Your task to perform on an android device: Clear all items from cart on ebay. Add "macbook pro" to the cart on ebay Image 0: 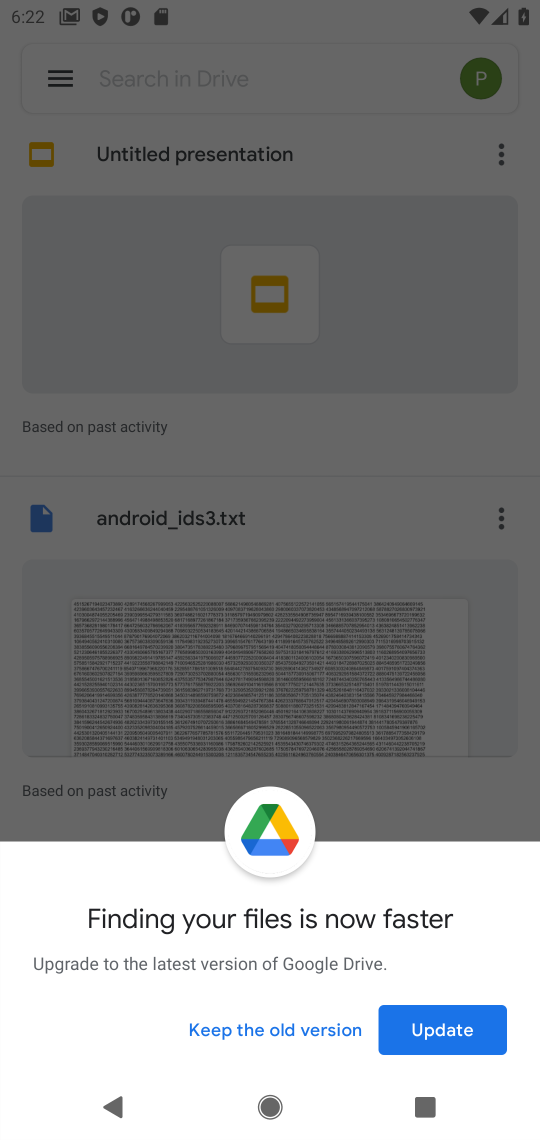
Step 0: press home button
Your task to perform on an android device: Clear all items from cart on ebay. Add "macbook pro" to the cart on ebay Image 1: 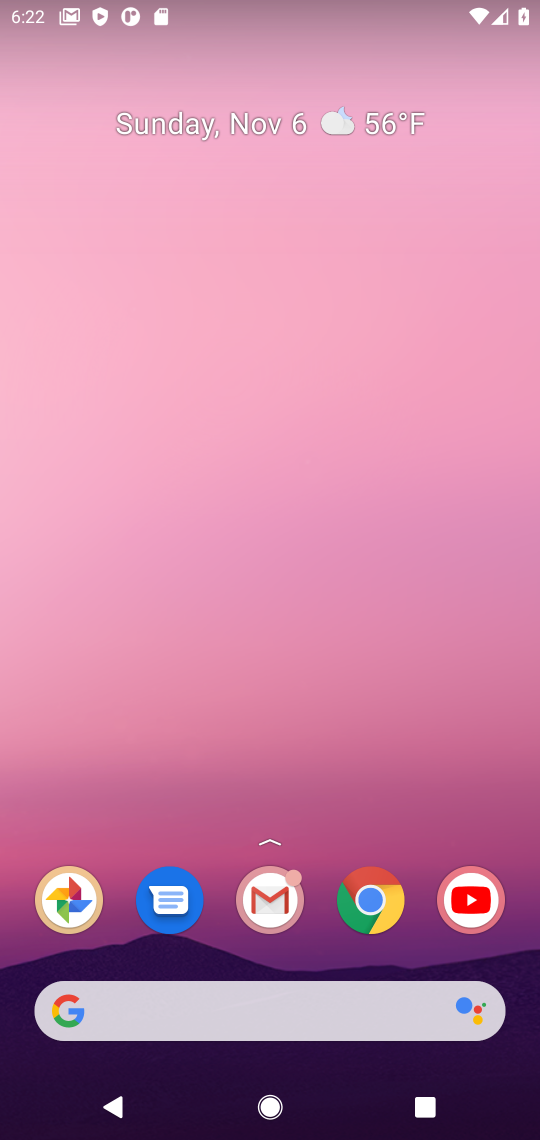
Step 1: drag from (294, 970) to (288, 37)
Your task to perform on an android device: Clear all items from cart on ebay. Add "macbook pro" to the cart on ebay Image 2: 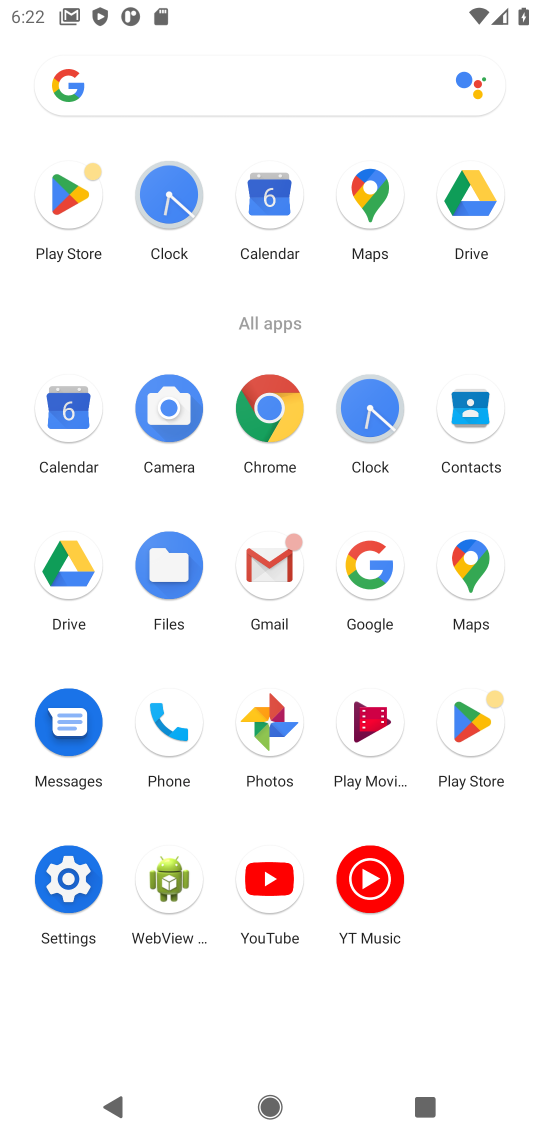
Step 2: click (272, 410)
Your task to perform on an android device: Clear all items from cart on ebay. Add "macbook pro" to the cart on ebay Image 3: 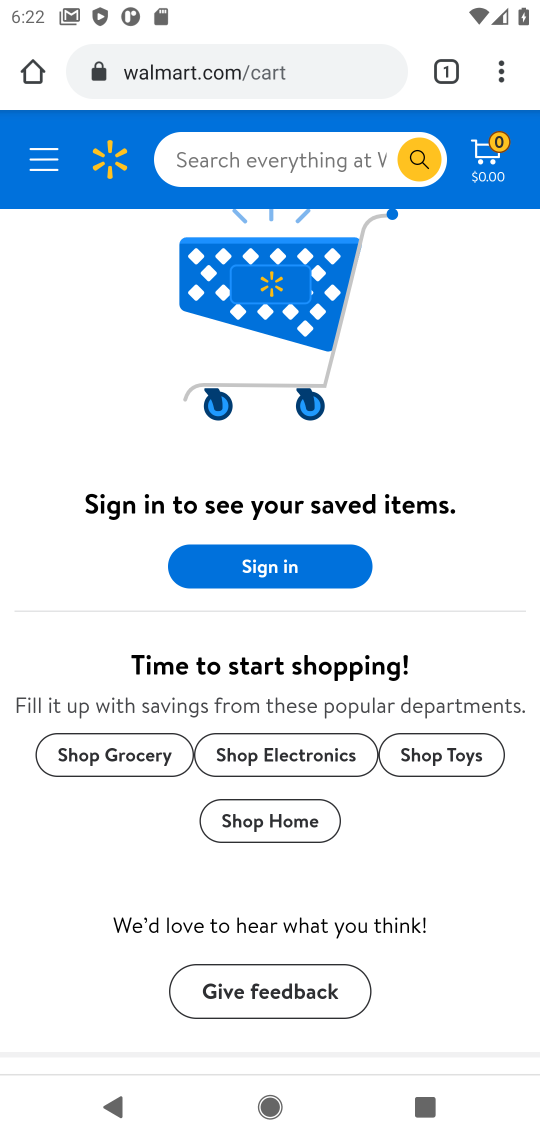
Step 3: click (300, 63)
Your task to perform on an android device: Clear all items from cart on ebay. Add "macbook pro" to the cart on ebay Image 4: 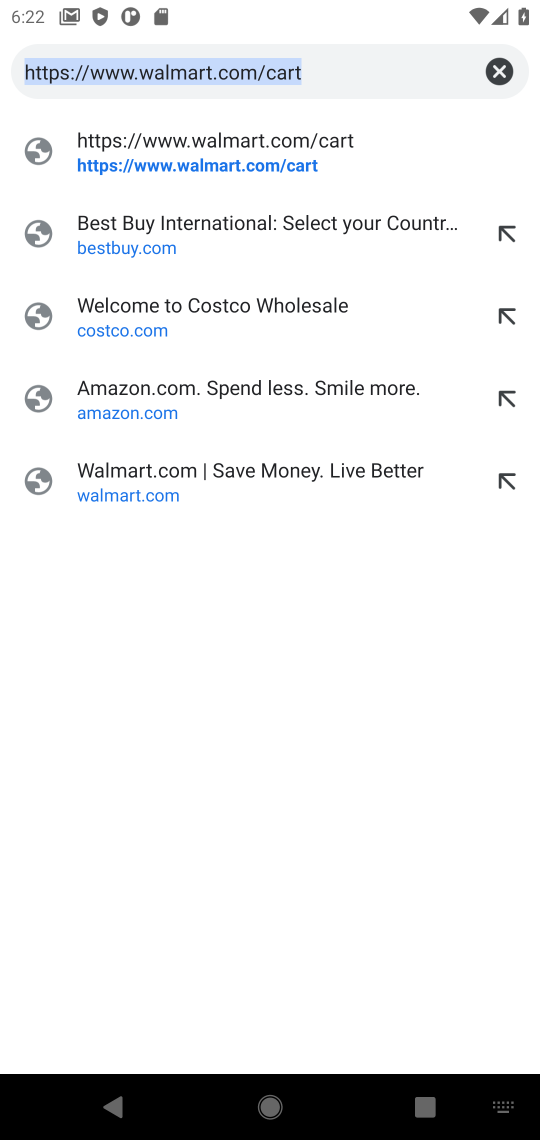
Step 4: type "ebay.com"
Your task to perform on an android device: Clear all items from cart on ebay. Add "macbook pro" to the cart on ebay Image 5: 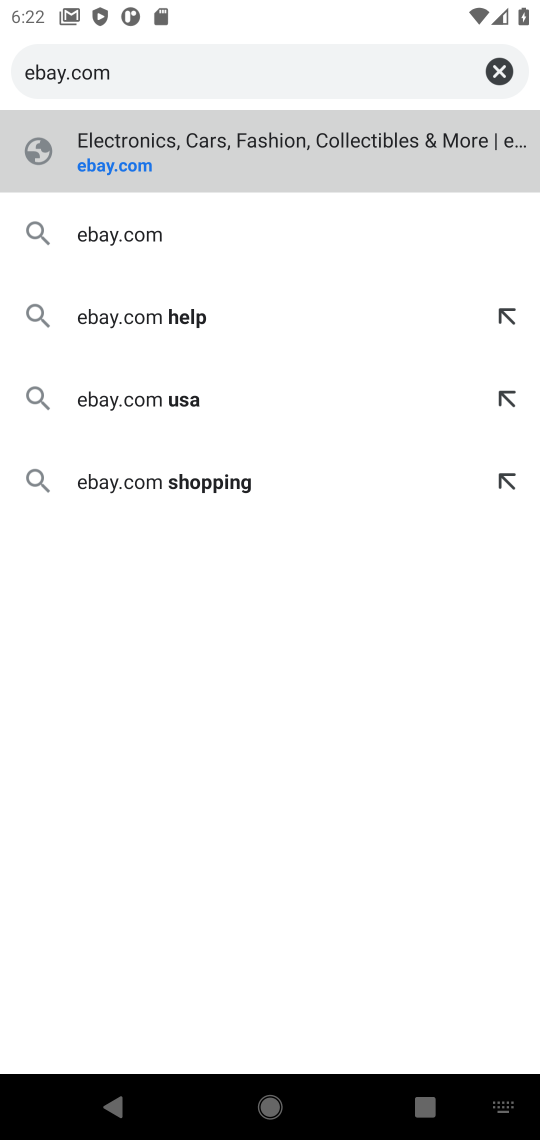
Step 5: press enter
Your task to perform on an android device: Clear all items from cart on ebay. Add "macbook pro" to the cart on ebay Image 6: 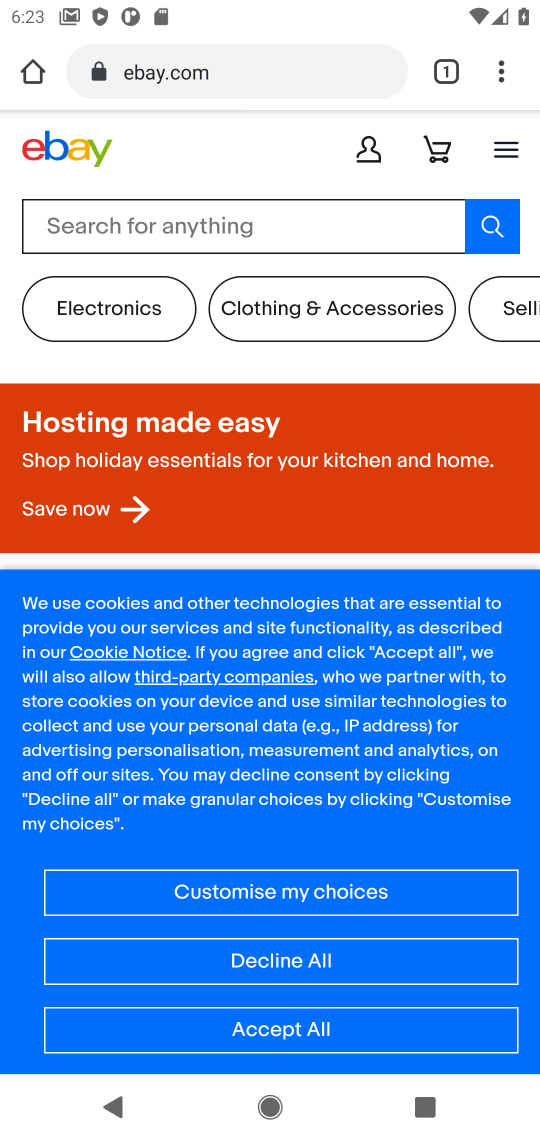
Step 6: click (293, 216)
Your task to perform on an android device: Clear all items from cart on ebay. Add "macbook pro" to the cart on ebay Image 7: 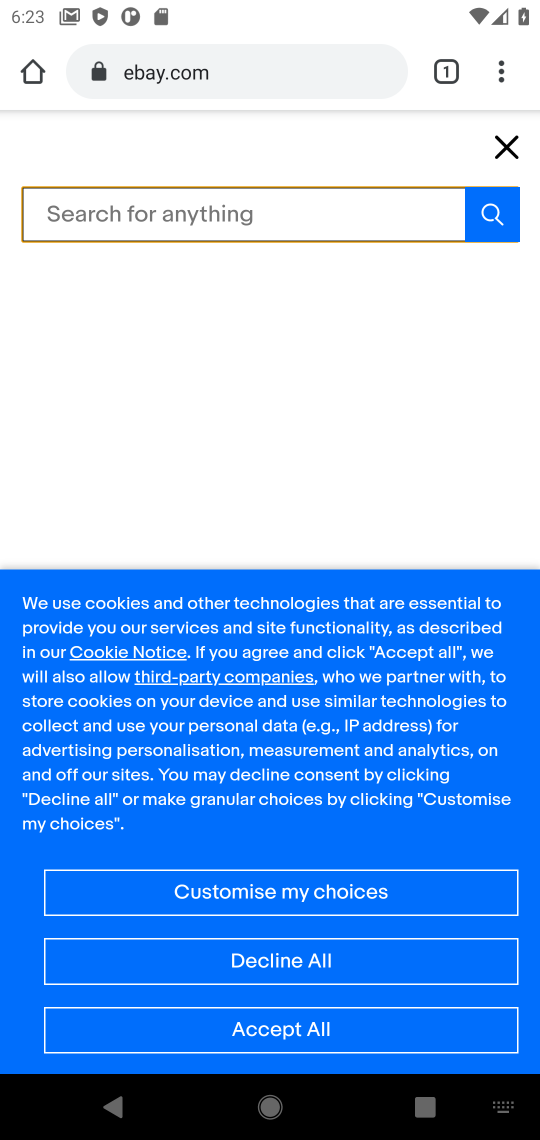
Step 7: click (496, 140)
Your task to perform on an android device: Clear all items from cart on ebay. Add "macbook pro" to the cart on ebay Image 8: 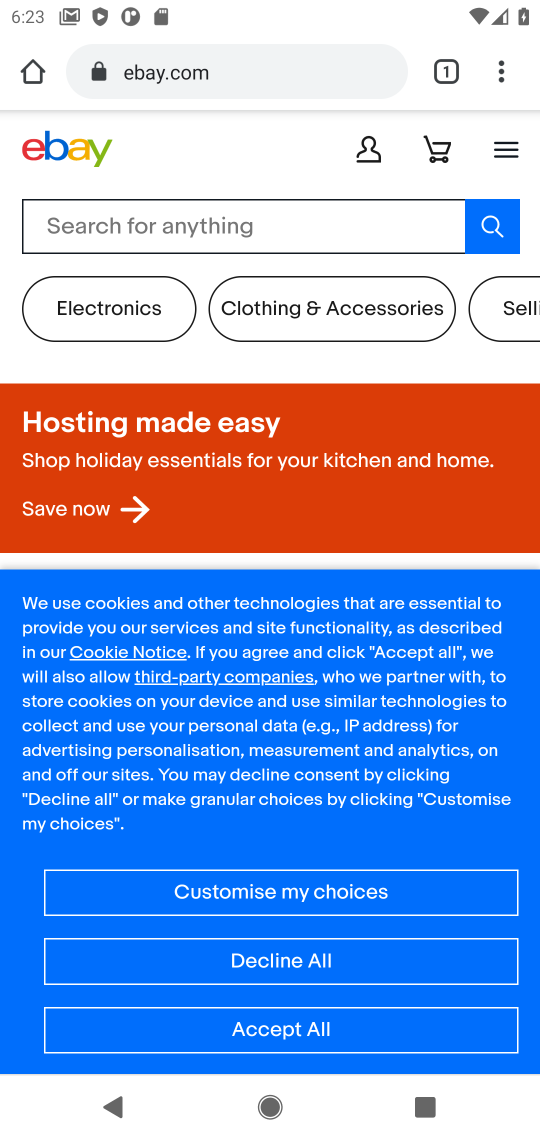
Step 8: click (421, 149)
Your task to perform on an android device: Clear all items from cart on ebay. Add "macbook pro" to the cart on ebay Image 9: 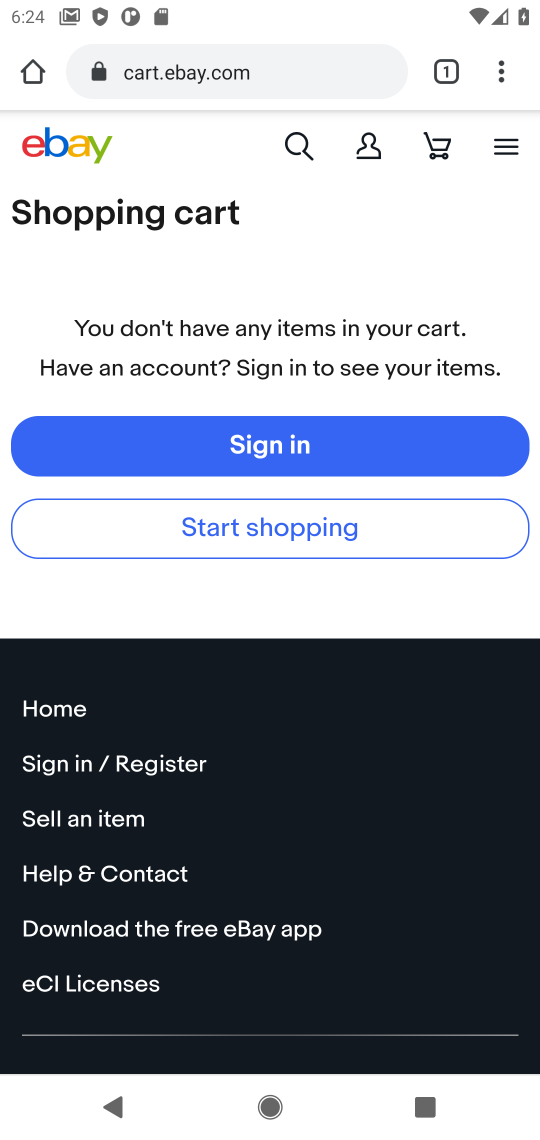
Step 9: click (357, 533)
Your task to perform on an android device: Clear all items from cart on ebay. Add "macbook pro" to the cart on ebay Image 10: 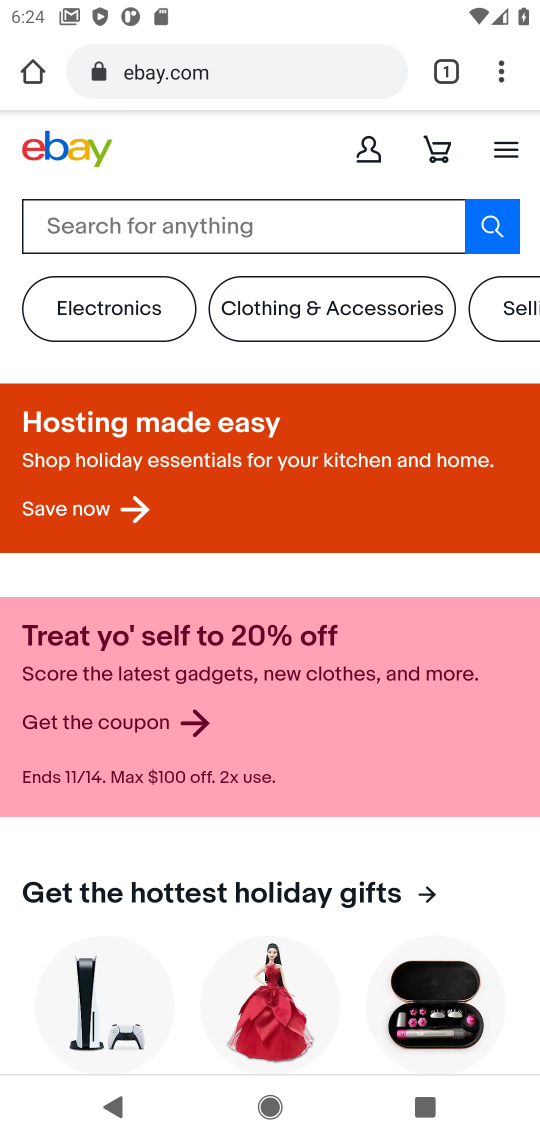
Step 10: click (272, 229)
Your task to perform on an android device: Clear all items from cart on ebay. Add "macbook pro" to the cart on ebay Image 11: 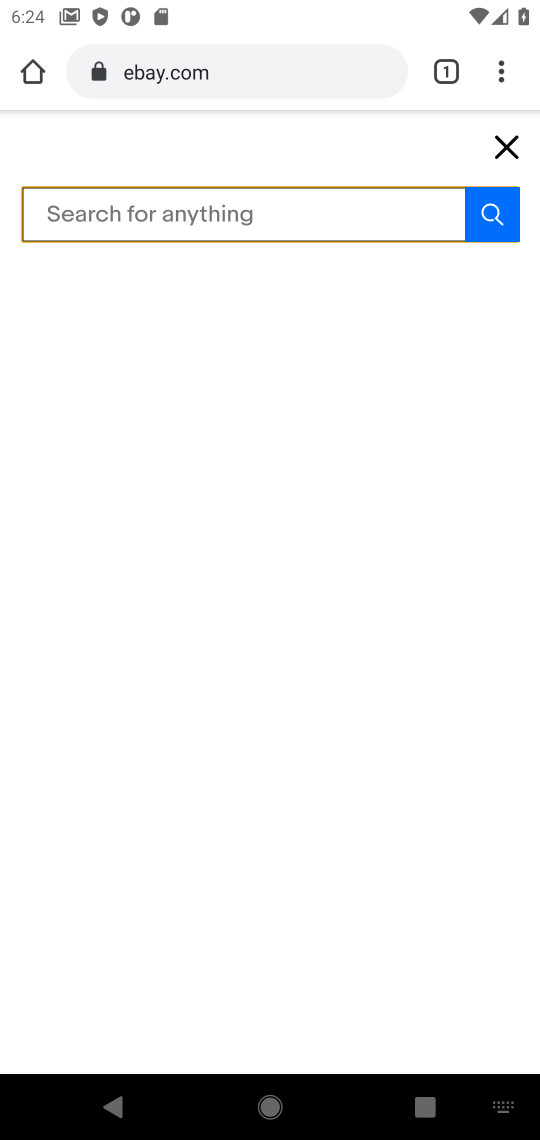
Step 11: type "macbook pro"
Your task to perform on an android device: Clear all items from cart on ebay. Add "macbook pro" to the cart on ebay Image 12: 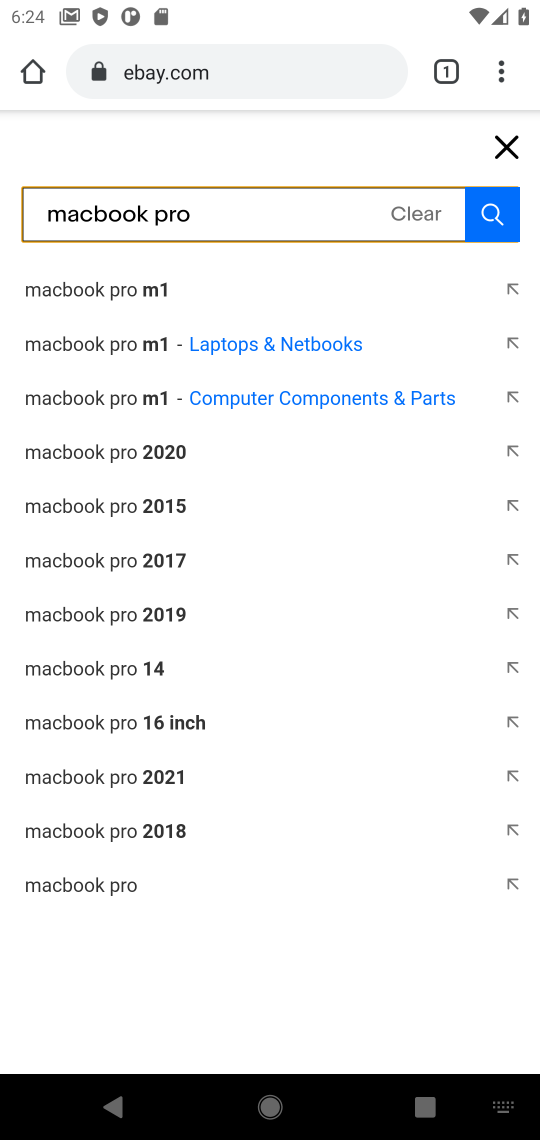
Step 12: click (490, 215)
Your task to perform on an android device: Clear all items from cart on ebay. Add "macbook pro" to the cart on ebay Image 13: 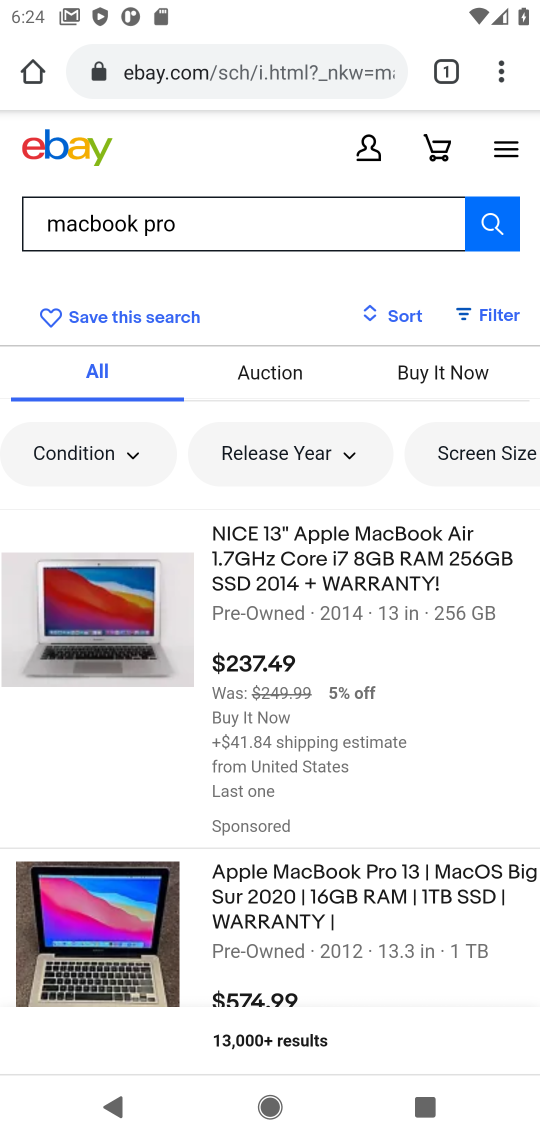
Step 13: click (303, 565)
Your task to perform on an android device: Clear all items from cart on ebay. Add "macbook pro" to the cart on ebay Image 14: 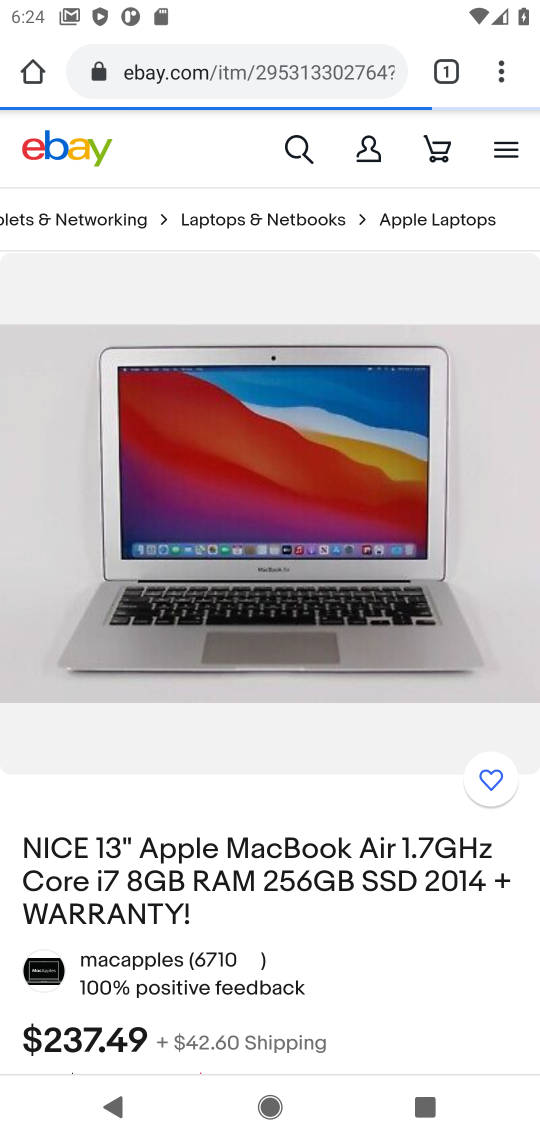
Step 14: drag from (292, 950) to (261, 104)
Your task to perform on an android device: Clear all items from cart on ebay. Add "macbook pro" to the cart on ebay Image 15: 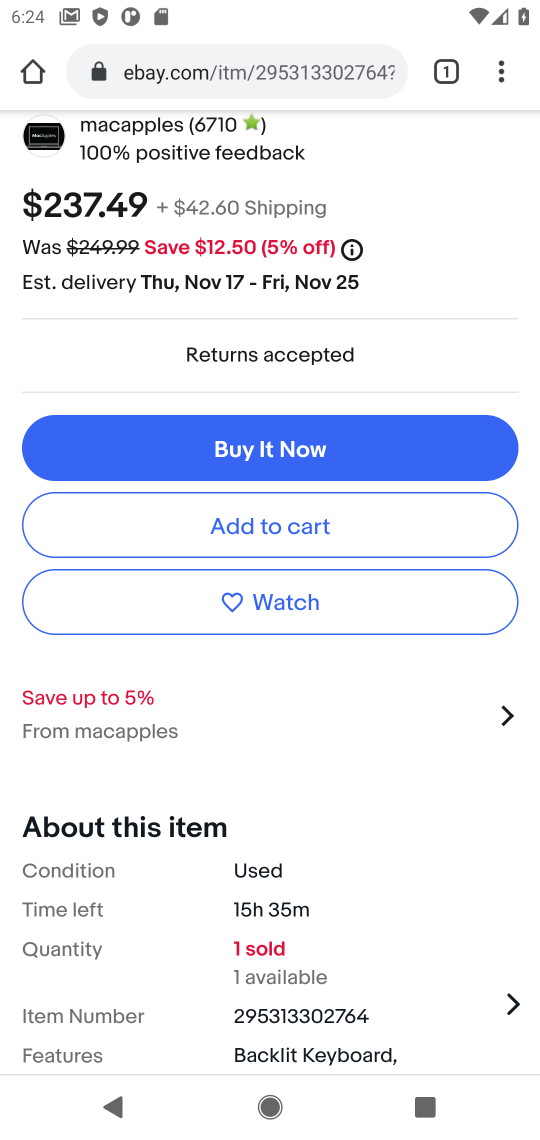
Step 15: drag from (308, 789) to (308, 403)
Your task to perform on an android device: Clear all items from cart on ebay. Add "macbook pro" to the cart on ebay Image 16: 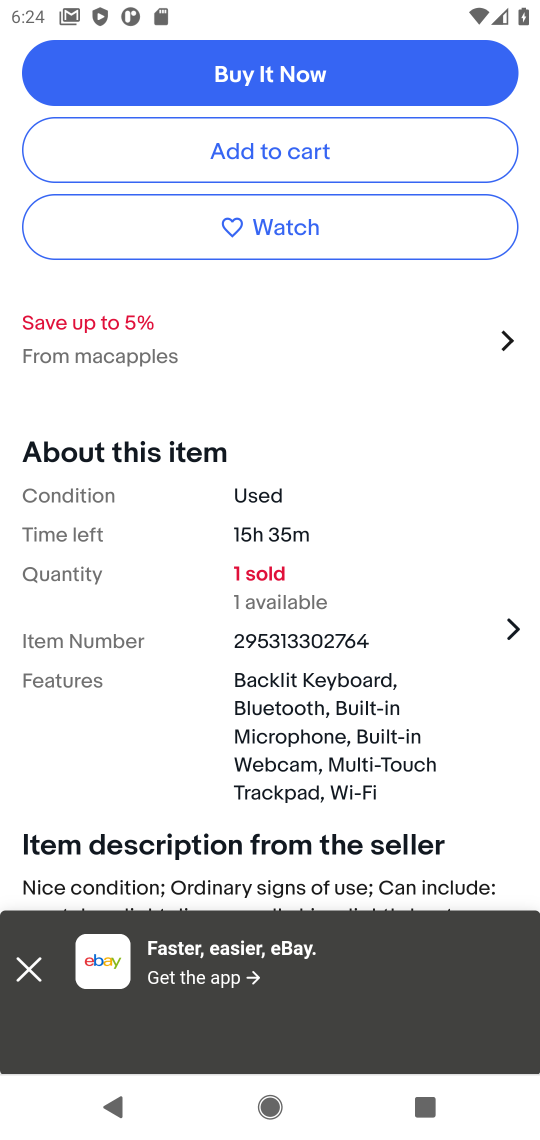
Step 16: click (227, 140)
Your task to perform on an android device: Clear all items from cart on ebay. Add "macbook pro" to the cart on ebay Image 17: 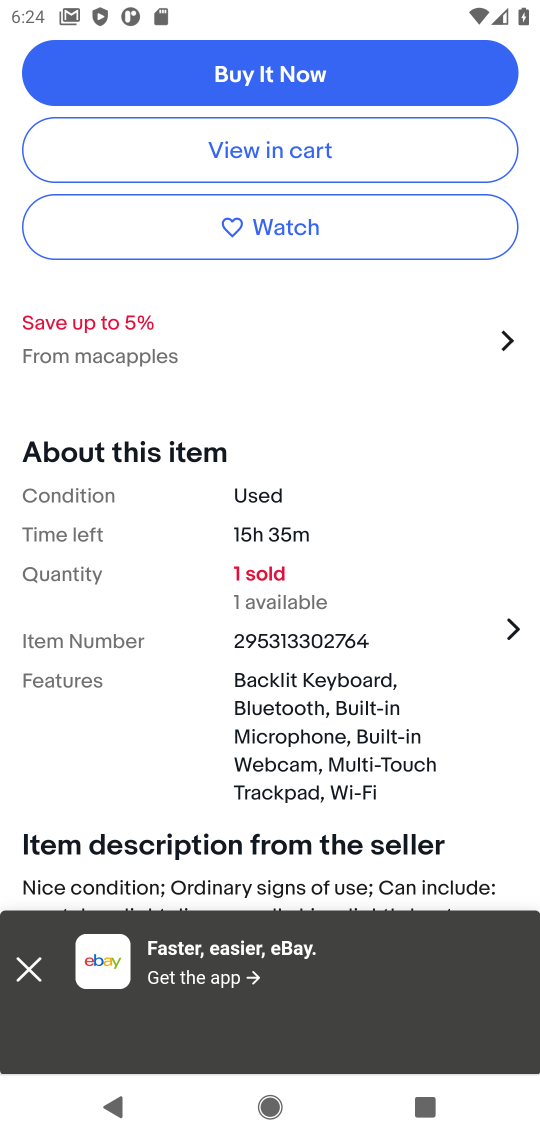
Step 17: task complete